Your task to perform on an android device: turn on wifi Image 0: 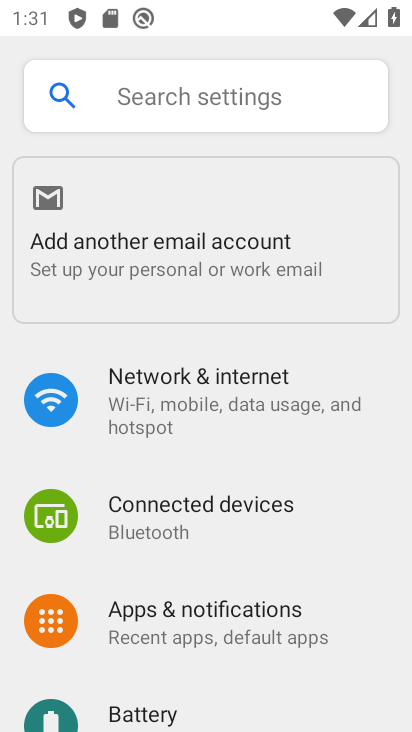
Step 0: click (199, 405)
Your task to perform on an android device: turn on wifi Image 1: 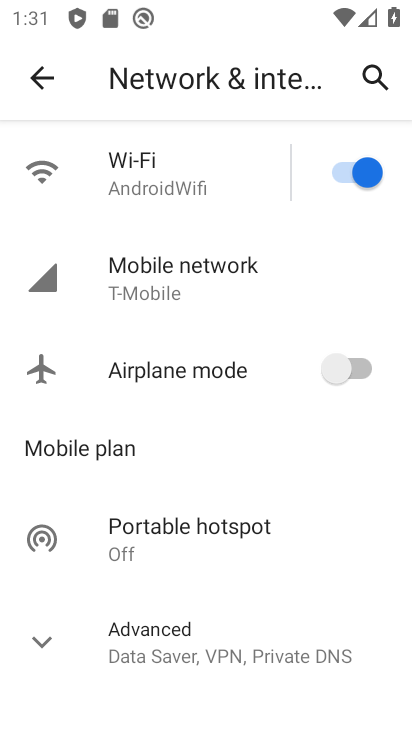
Step 1: task complete